Your task to perform on an android device: turn on showing notifications on the lock screen Image 0: 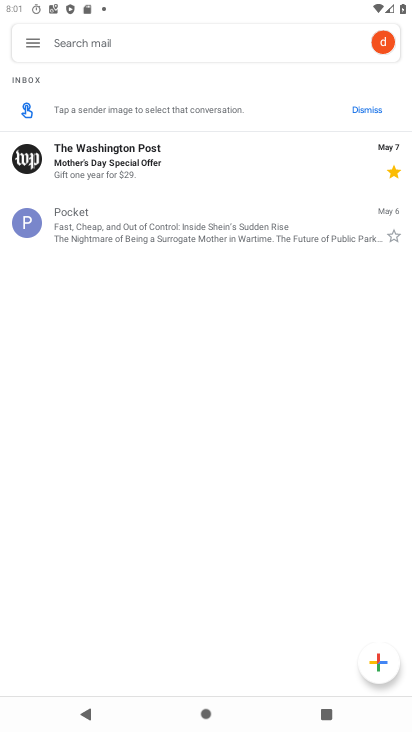
Step 0: press home button
Your task to perform on an android device: turn on showing notifications on the lock screen Image 1: 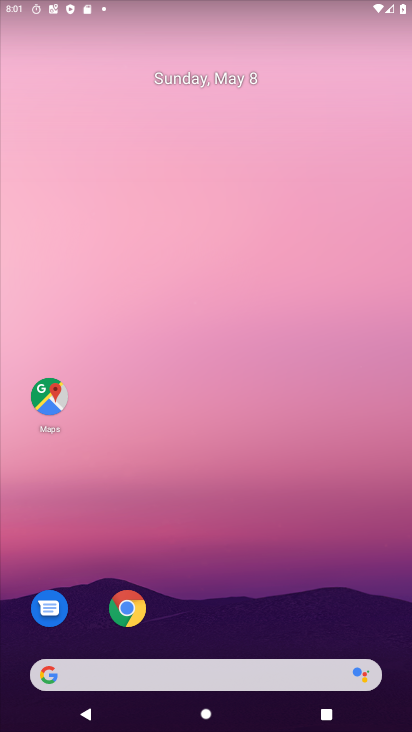
Step 1: drag from (248, 560) to (253, 148)
Your task to perform on an android device: turn on showing notifications on the lock screen Image 2: 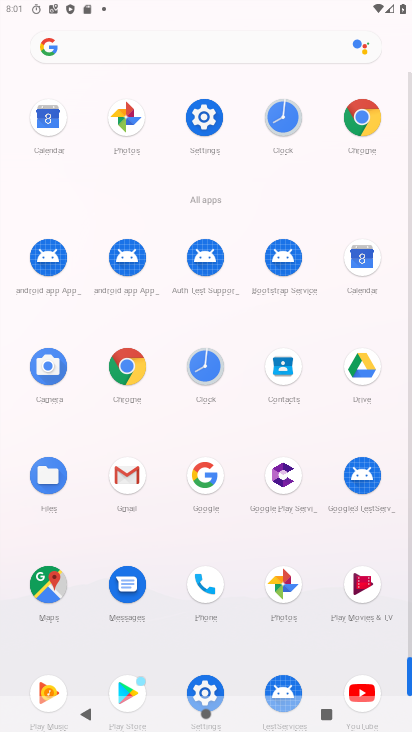
Step 2: click (200, 111)
Your task to perform on an android device: turn on showing notifications on the lock screen Image 3: 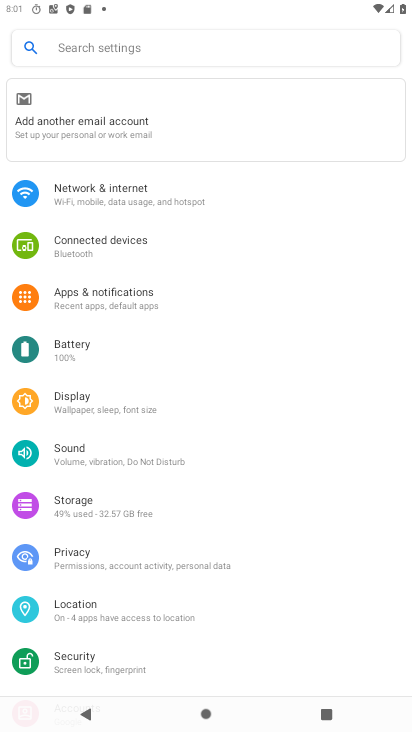
Step 3: click (163, 303)
Your task to perform on an android device: turn on showing notifications on the lock screen Image 4: 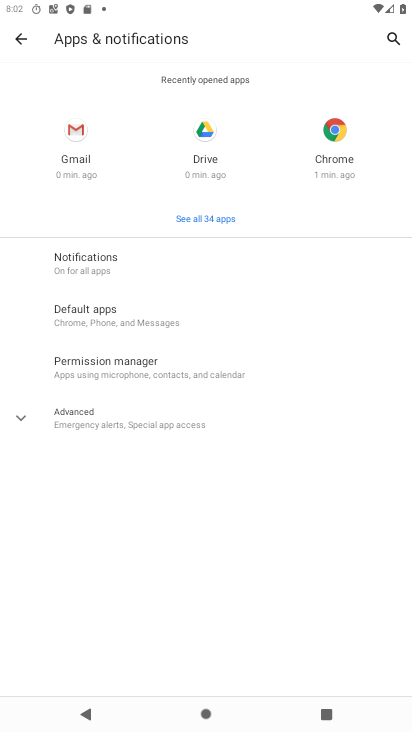
Step 4: click (147, 262)
Your task to perform on an android device: turn on showing notifications on the lock screen Image 5: 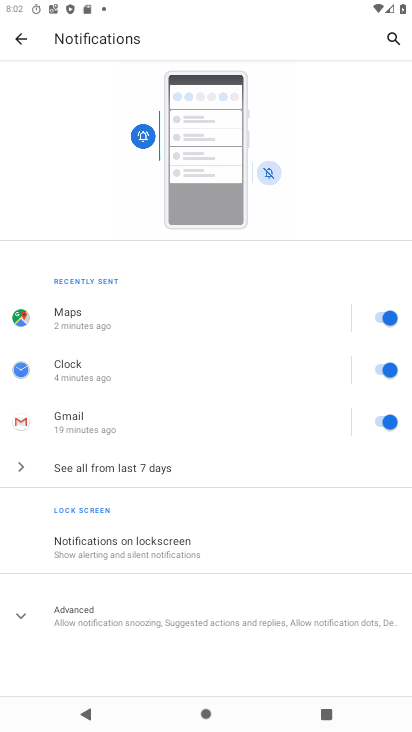
Step 5: click (142, 547)
Your task to perform on an android device: turn on showing notifications on the lock screen Image 6: 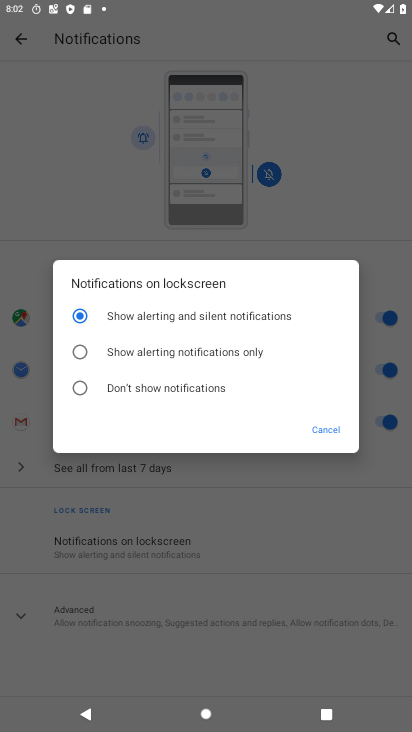
Step 6: task complete